Your task to perform on an android device: change alarm snooze length Image 0: 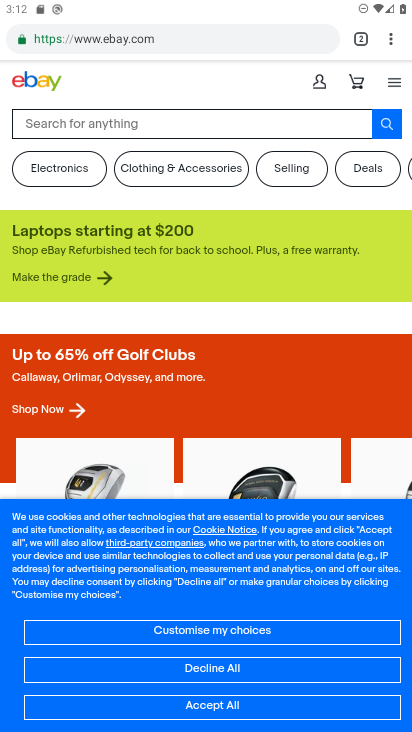
Step 0: press home button
Your task to perform on an android device: change alarm snooze length Image 1: 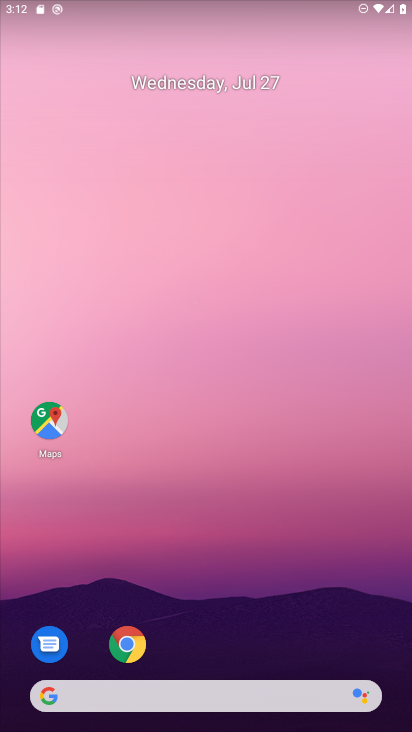
Step 1: drag from (219, 616) to (285, 167)
Your task to perform on an android device: change alarm snooze length Image 2: 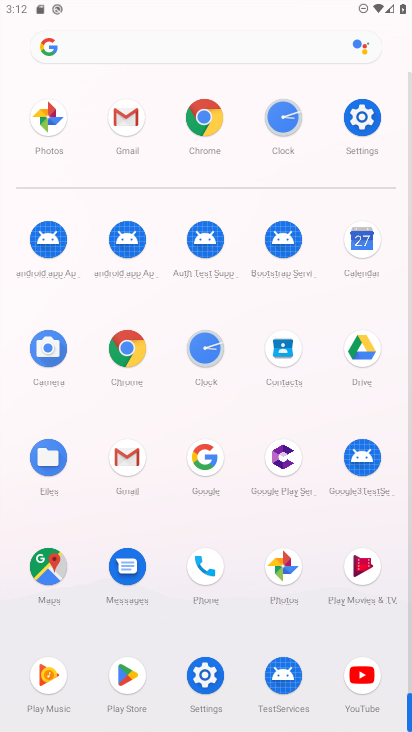
Step 2: click (215, 347)
Your task to perform on an android device: change alarm snooze length Image 3: 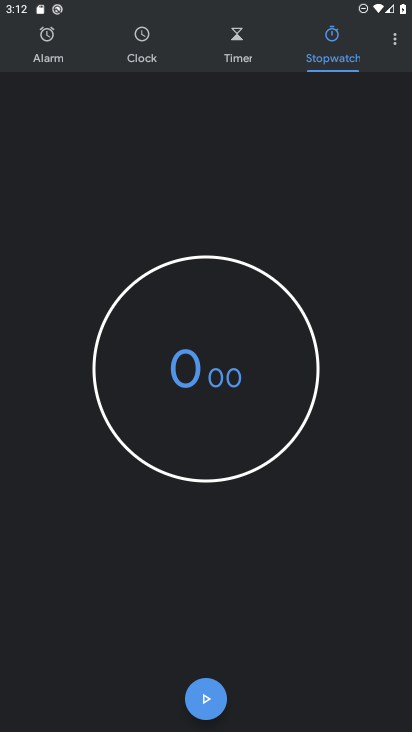
Step 3: click (398, 47)
Your task to perform on an android device: change alarm snooze length Image 4: 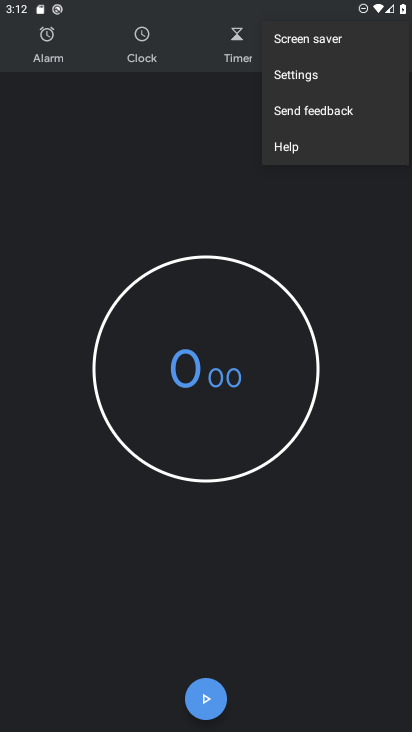
Step 4: click (291, 81)
Your task to perform on an android device: change alarm snooze length Image 5: 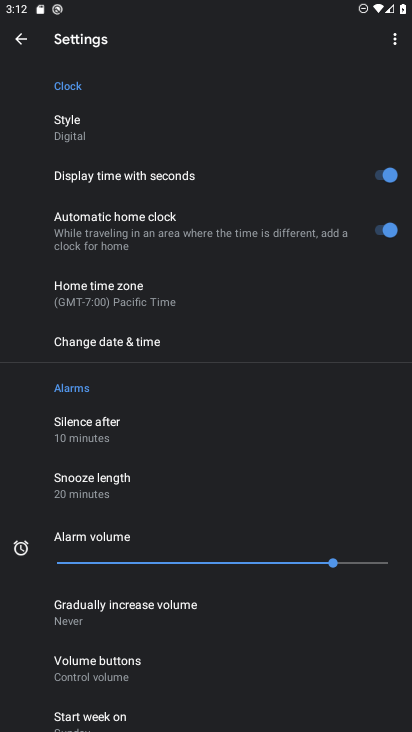
Step 5: click (98, 491)
Your task to perform on an android device: change alarm snooze length Image 6: 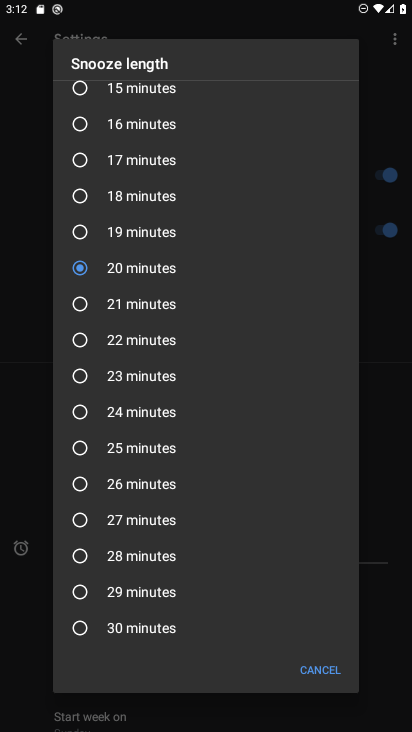
Step 6: click (123, 120)
Your task to perform on an android device: change alarm snooze length Image 7: 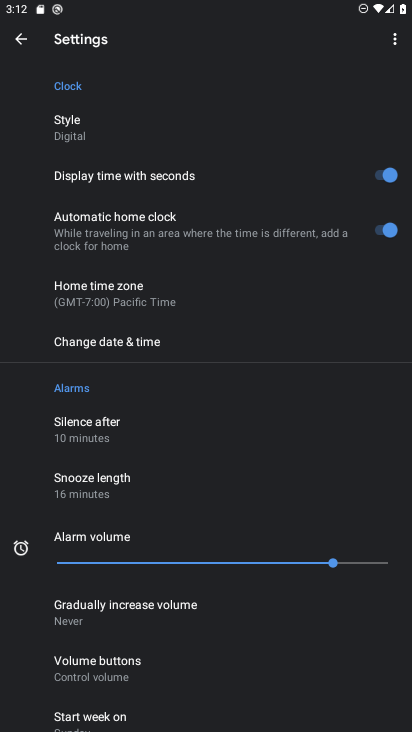
Step 7: task complete